Your task to perform on an android device: toggle location history Image 0: 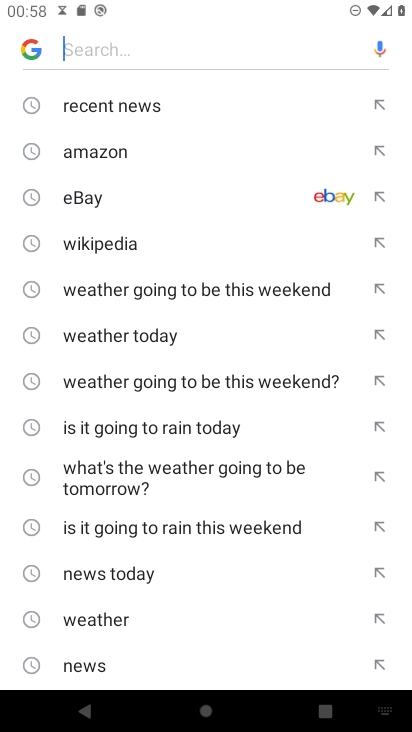
Step 0: press home button
Your task to perform on an android device: toggle location history Image 1: 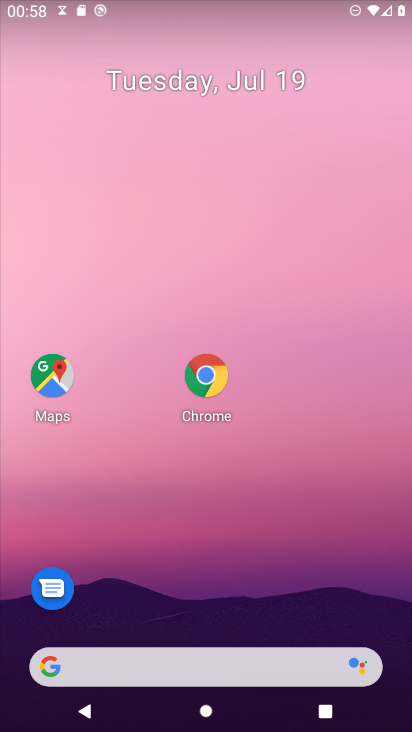
Step 1: drag from (315, 522) to (340, 4)
Your task to perform on an android device: toggle location history Image 2: 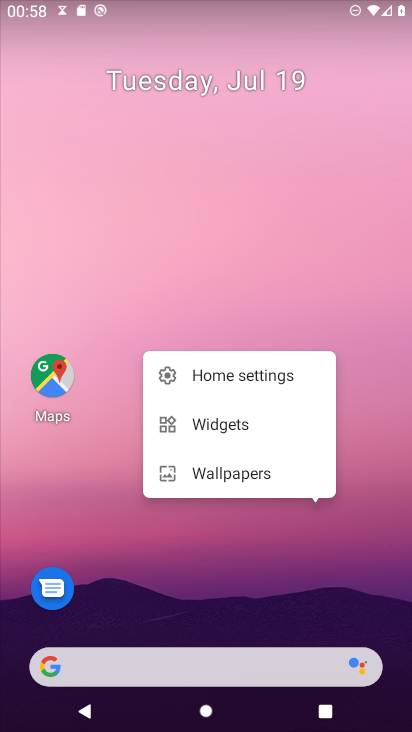
Step 2: drag from (131, 511) to (197, 59)
Your task to perform on an android device: toggle location history Image 3: 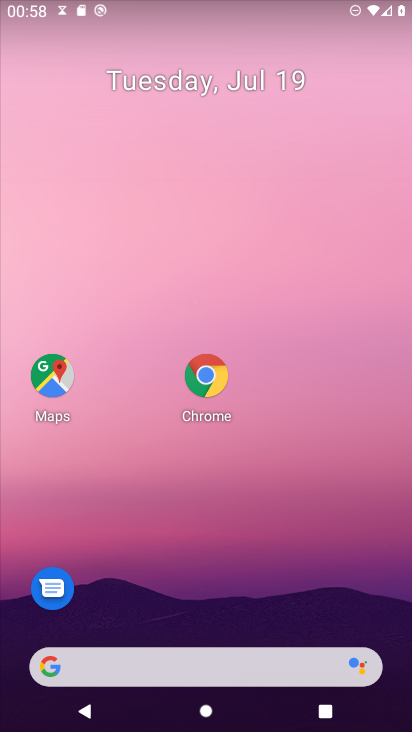
Step 3: drag from (153, 518) to (365, 724)
Your task to perform on an android device: toggle location history Image 4: 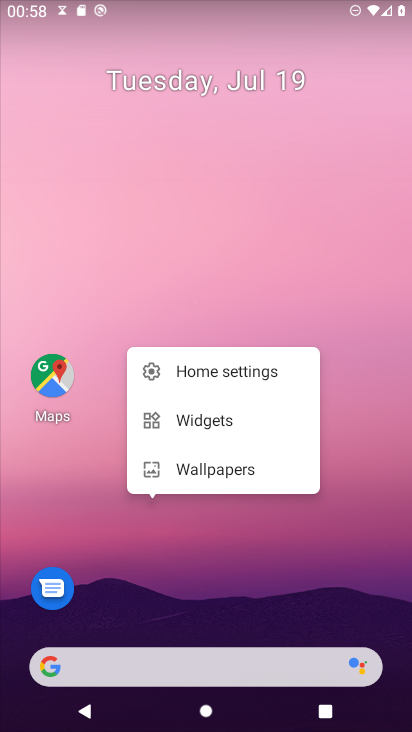
Step 4: click (160, 567)
Your task to perform on an android device: toggle location history Image 5: 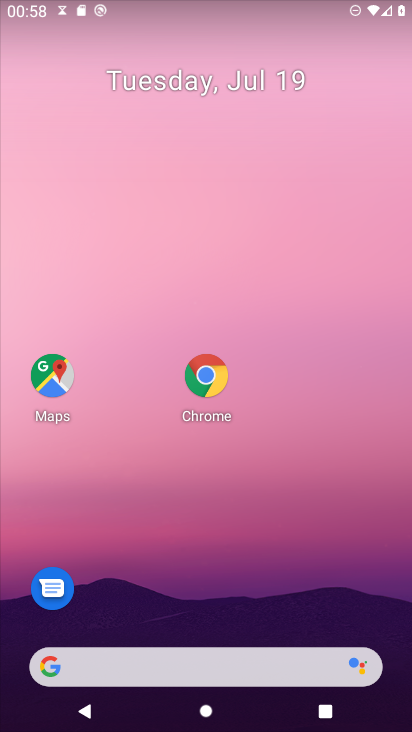
Step 5: drag from (155, 589) to (233, 12)
Your task to perform on an android device: toggle location history Image 6: 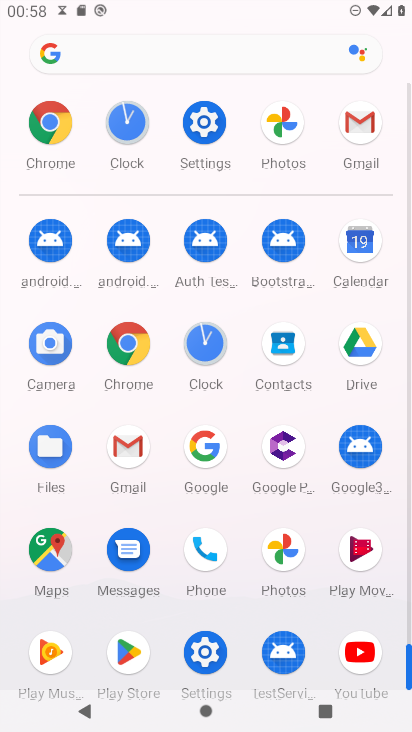
Step 6: click (207, 122)
Your task to perform on an android device: toggle location history Image 7: 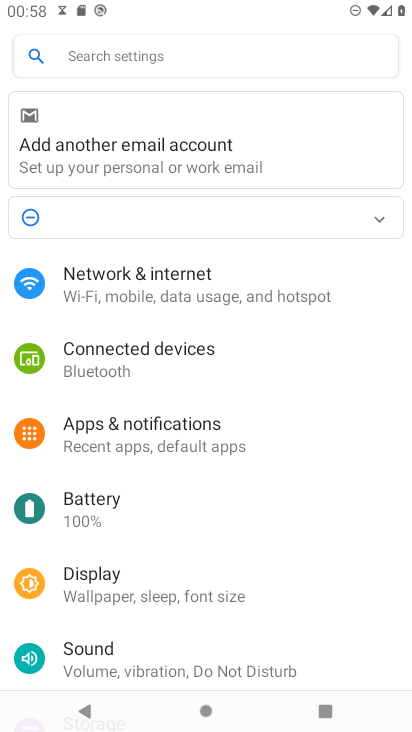
Step 7: drag from (130, 625) to (248, 123)
Your task to perform on an android device: toggle location history Image 8: 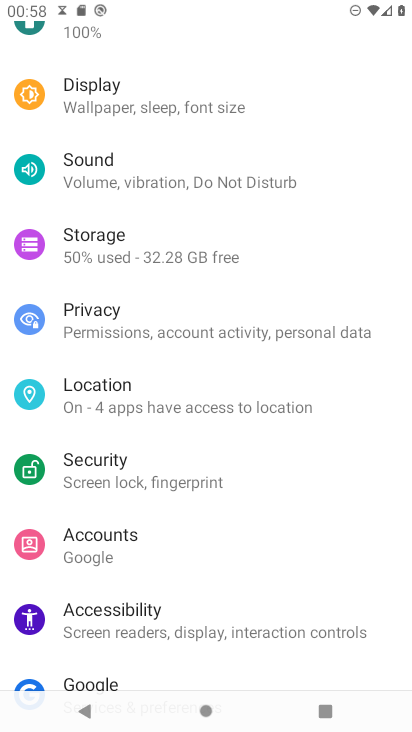
Step 8: drag from (188, 552) to (235, 62)
Your task to perform on an android device: toggle location history Image 9: 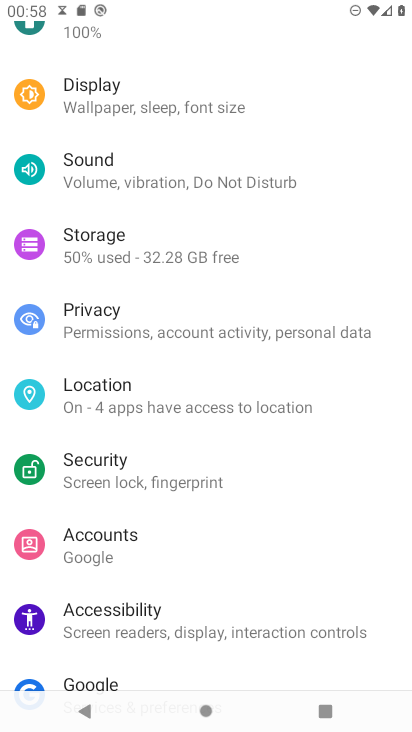
Step 9: click (117, 378)
Your task to perform on an android device: toggle location history Image 10: 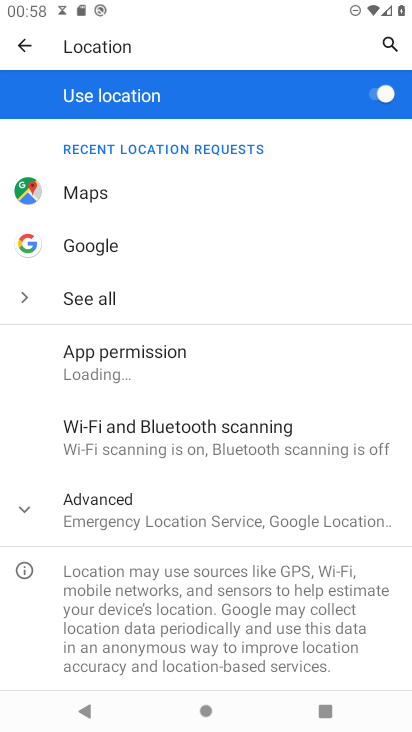
Step 10: click (21, 511)
Your task to perform on an android device: toggle location history Image 11: 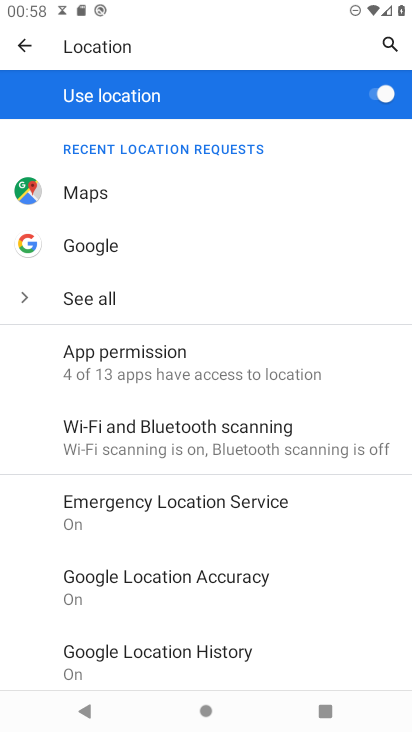
Step 11: click (183, 649)
Your task to perform on an android device: toggle location history Image 12: 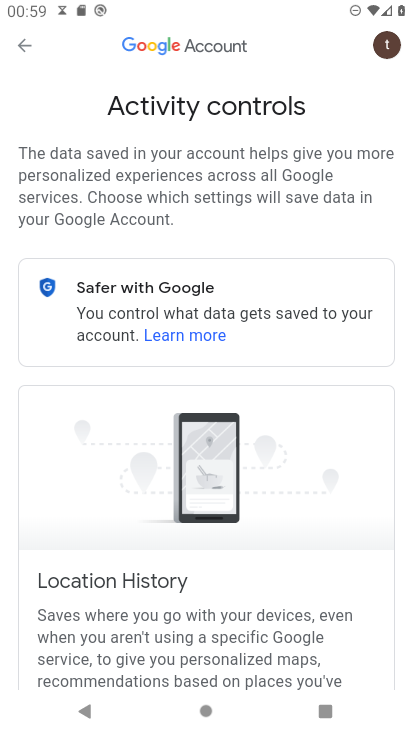
Step 12: drag from (342, 619) to (368, 65)
Your task to perform on an android device: toggle location history Image 13: 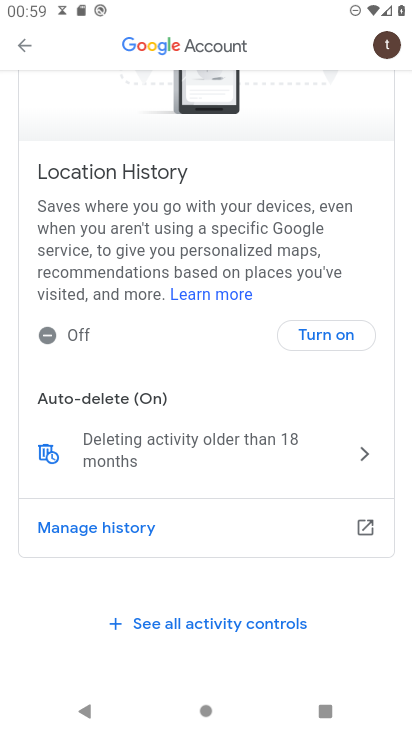
Step 13: click (352, 334)
Your task to perform on an android device: toggle location history Image 14: 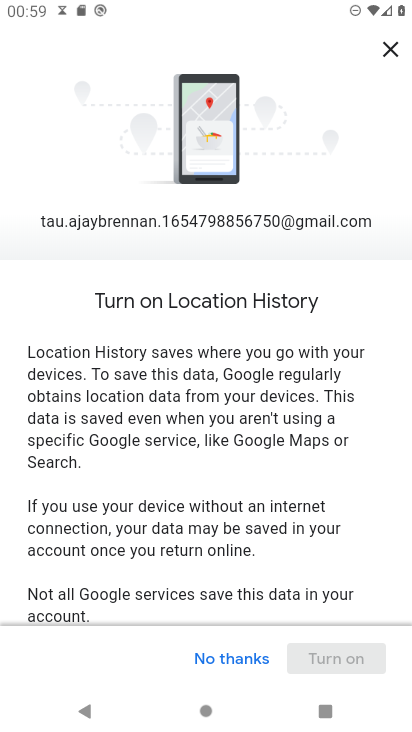
Step 14: drag from (333, 575) to (388, 194)
Your task to perform on an android device: toggle location history Image 15: 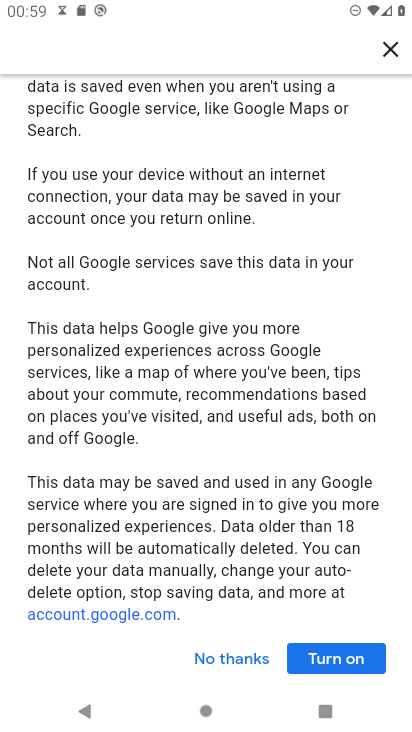
Step 15: click (339, 652)
Your task to perform on an android device: toggle location history Image 16: 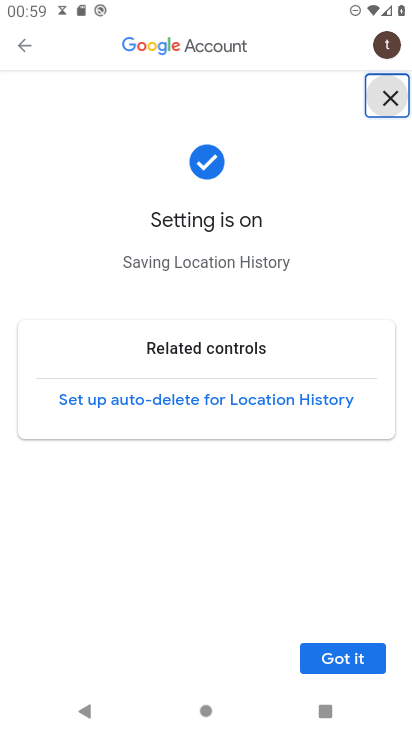
Step 16: click (362, 653)
Your task to perform on an android device: toggle location history Image 17: 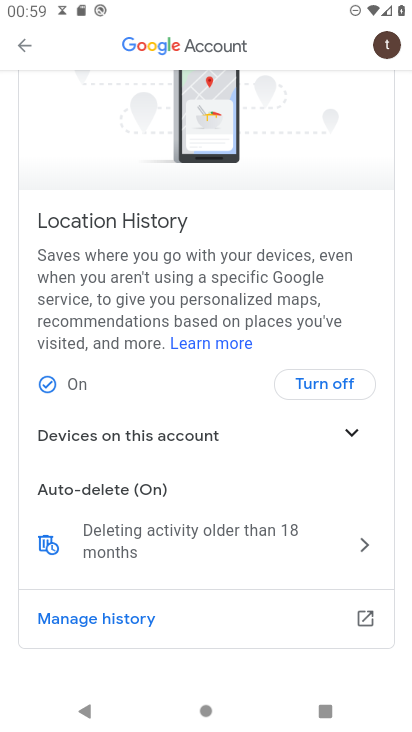
Step 17: task complete